Your task to perform on an android device: What's on my calendar today? Image 0: 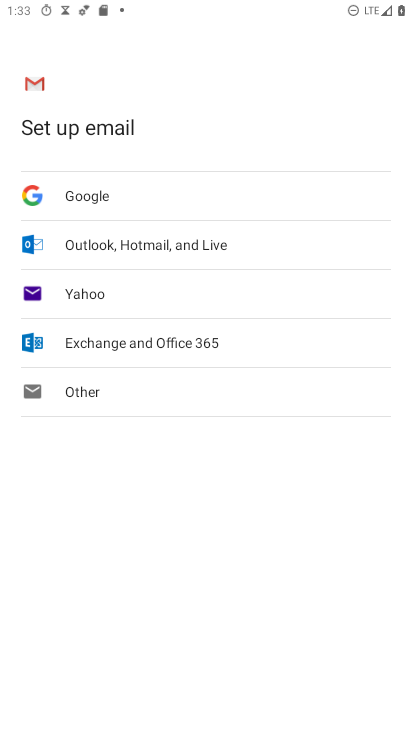
Step 0: press home button
Your task to perform on an android device: What's on my calendar today? Image 1: 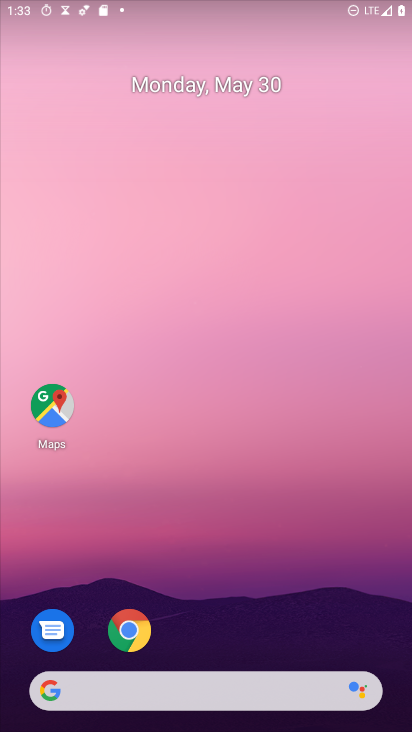
Step 1: drag from (235, 684) to (235, 221)
Your task to perform on an android device: What's on my calendar today? Image 2: 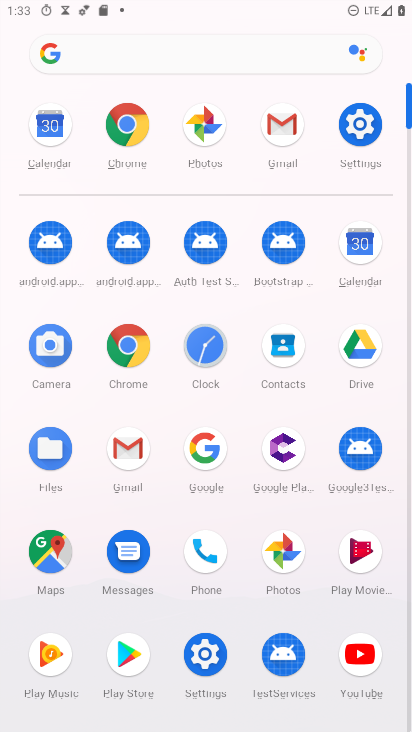
Step 2: click (351, 255)
Your task to perform on an android device: What's on my calendar today? Image 3: 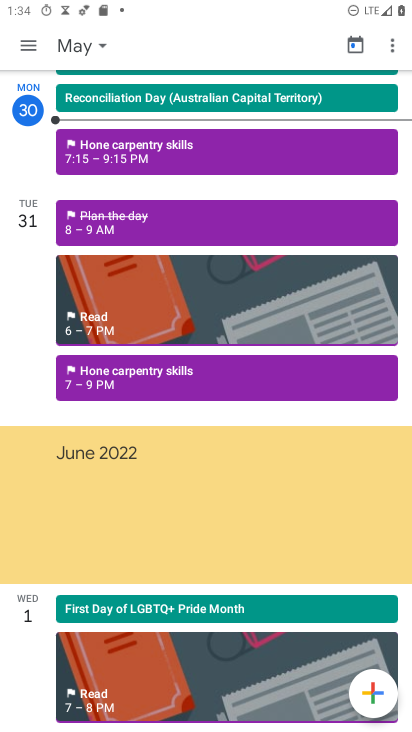
Step 3: click (19, 42)
Your task to perform on an android device: What's on my calendar today? Image 4: 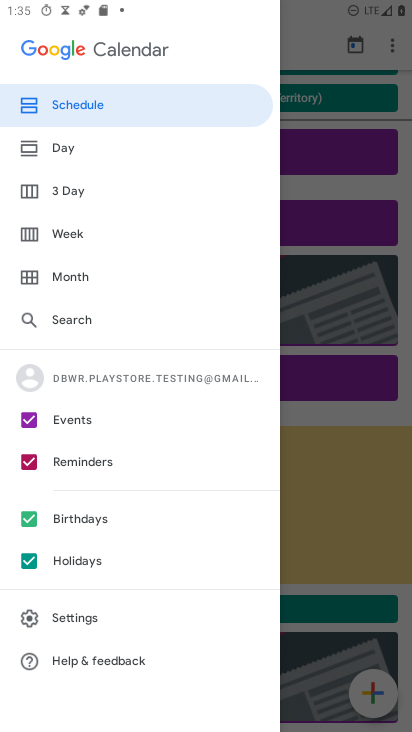
Step 4: click (81, 106)
Your task to perform on an android device: What's on my calendar today? Image 5: 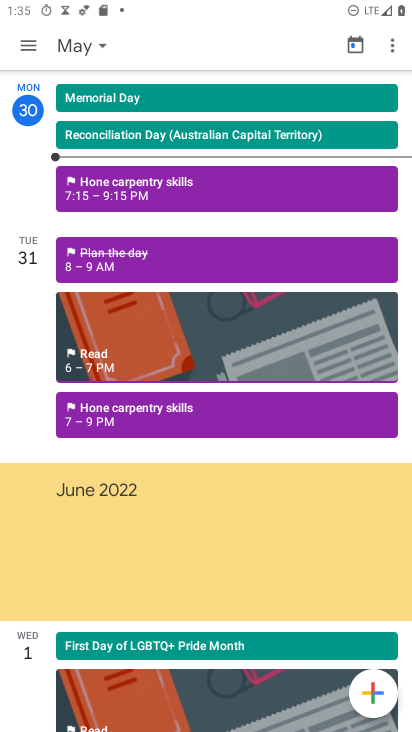
Step 5: task complete